Your task to perform on an android device: open the mobile data screen to see how much data has been used Image 0: 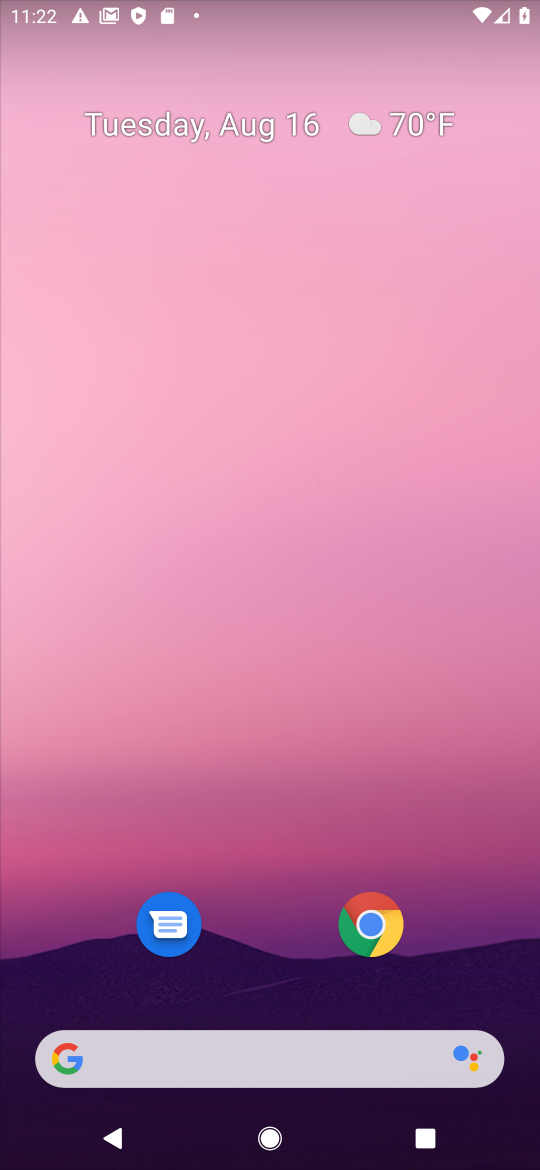
Step 0: drag from (234, 1002) to (455, 20)
Your task to perform on an android device: open the mobile data screen to see how much data has been used Image 1: 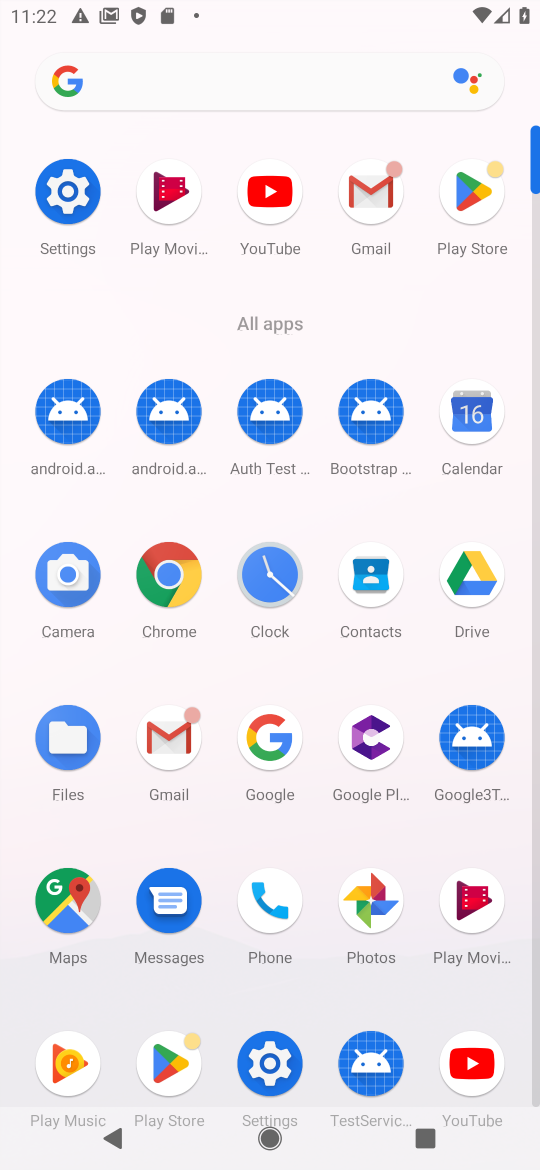
Step 1: drag from (235, 19) to (286, 755)
Your task to perform on an android device: open the mobile data screen to see how much data has been used Image 2: 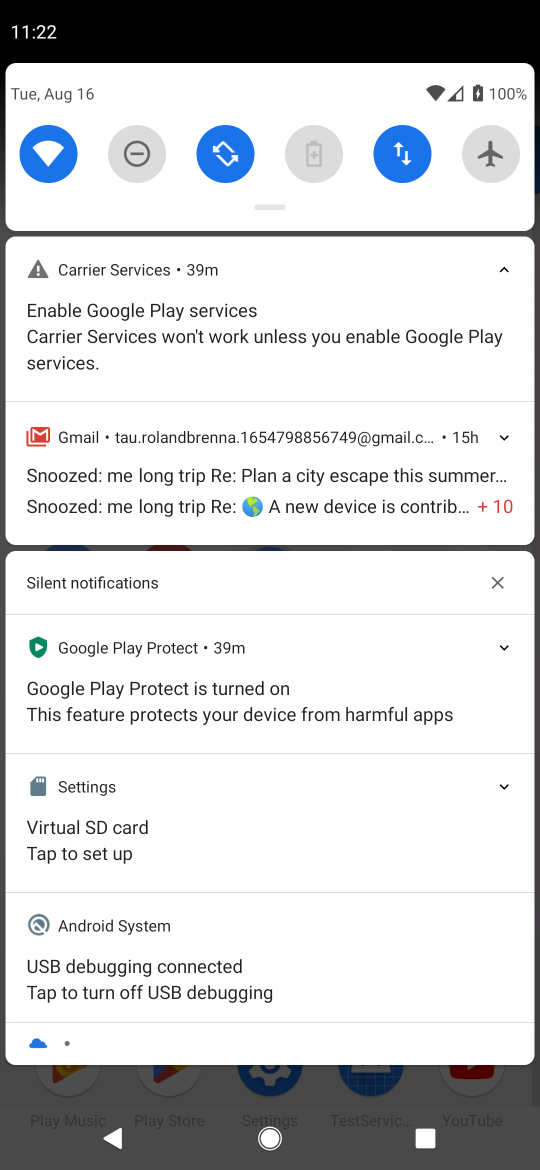
Step 2: click (393, 163)
Your task to perform on an android device: open the mobile data screen to see how much data has been used Image 3: 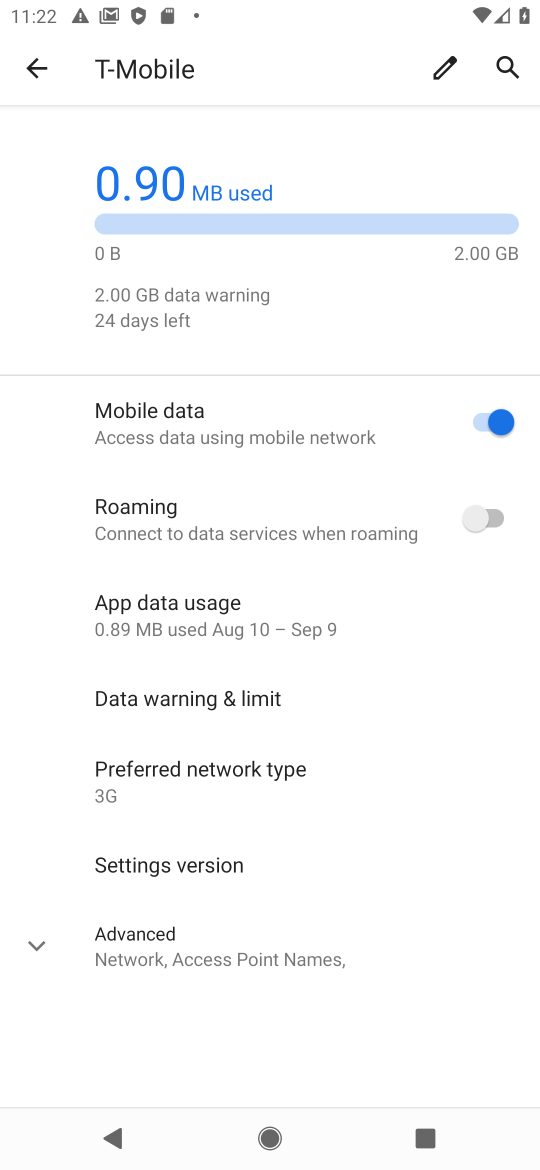
Step 3: task complete